Your task to perform on an android device: turn on the 12-hour format for clock Image 0: 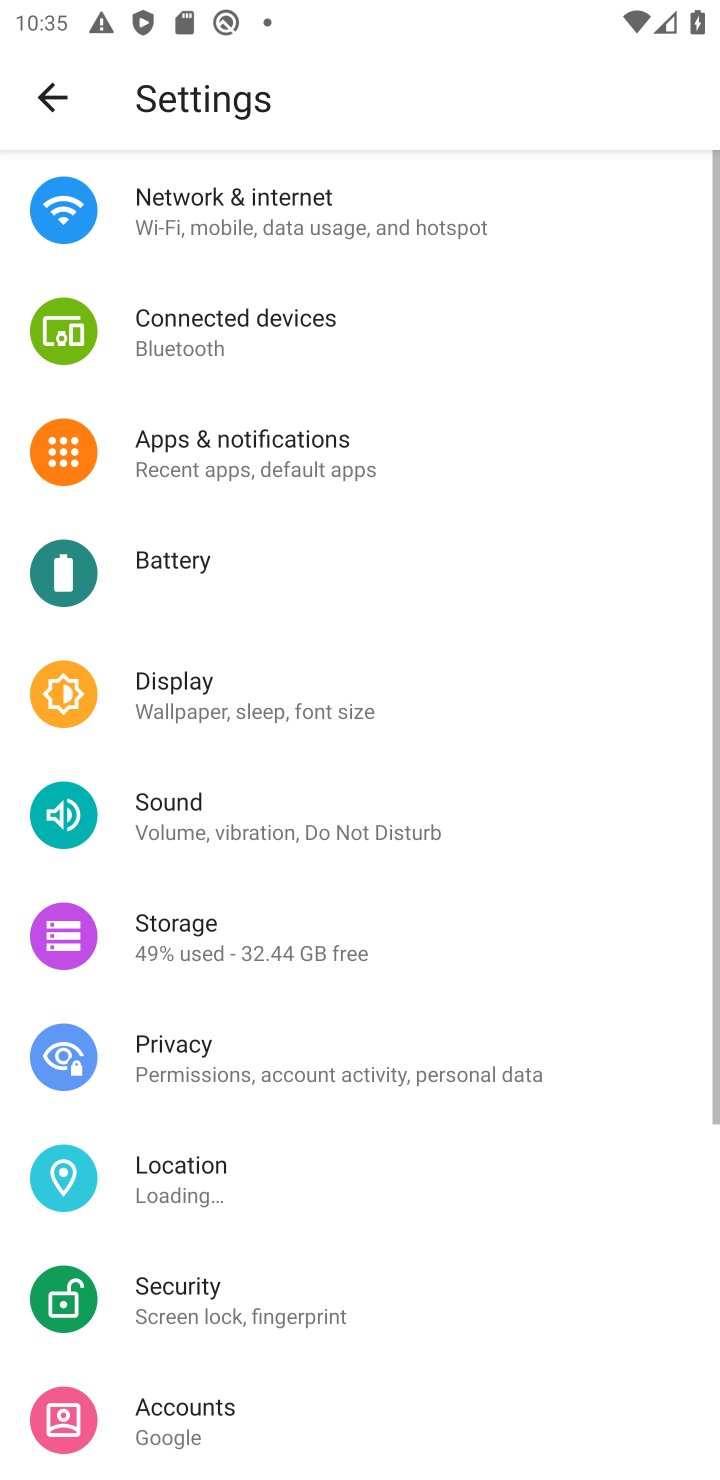
Step 0: press home button
Your task to perform on an android device: turn on the 12-hour format for clock Image 1: 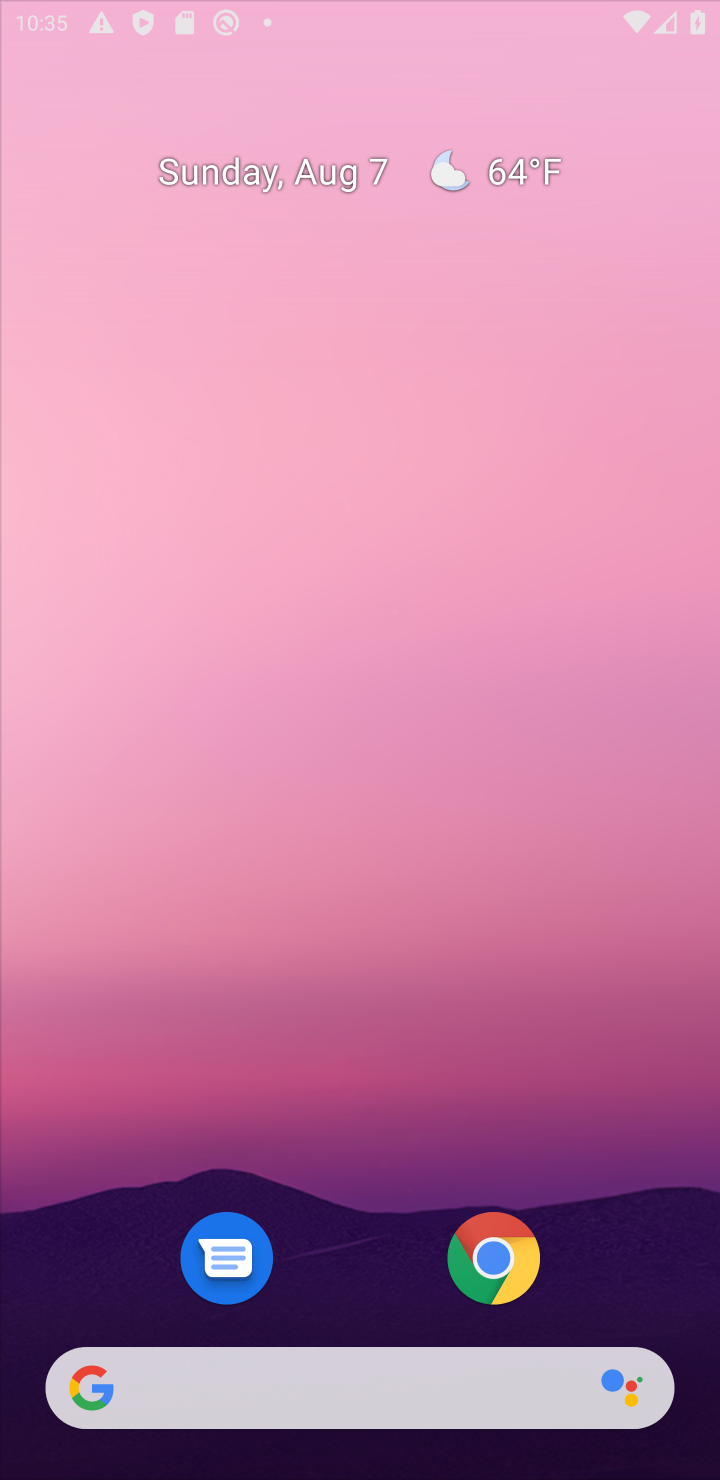
Step 1: press home button
Your task to perform on an android device: turn on the 12-hour format for clock Image 2: 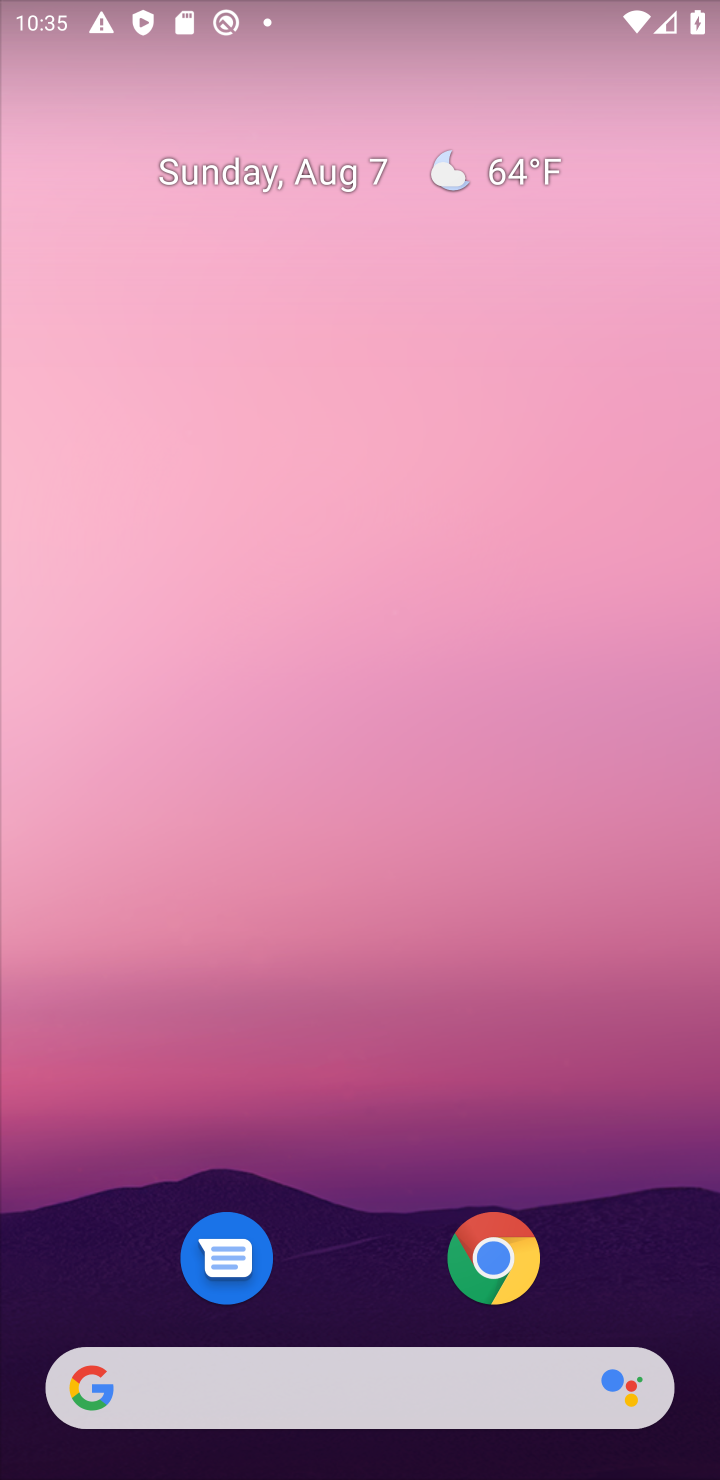
Step 2: press home button
Your task to perform on an android device: turn on the 12-hour format for clock Image 3: 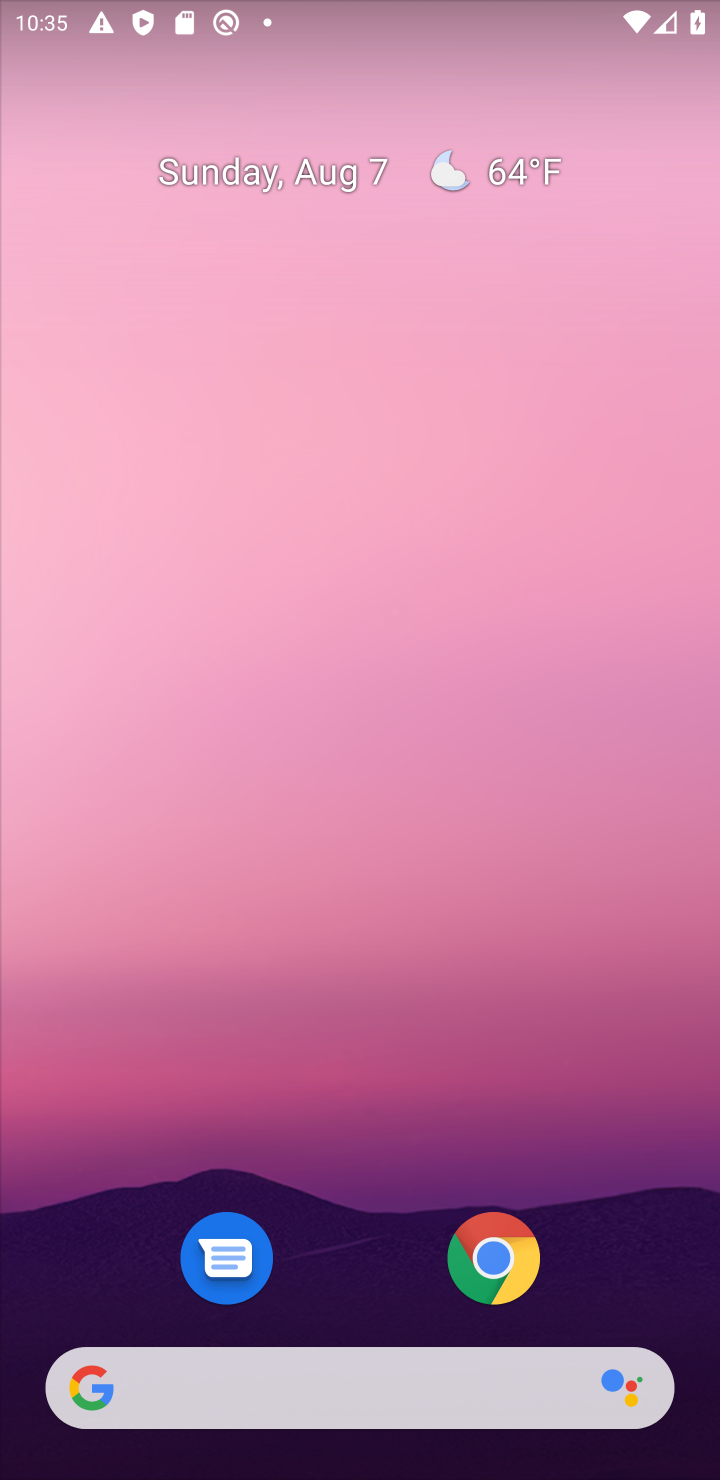
Step 3: click (335, 74)
Your task to perform on an android device: turn on the 12-hour format for clock Image 4: 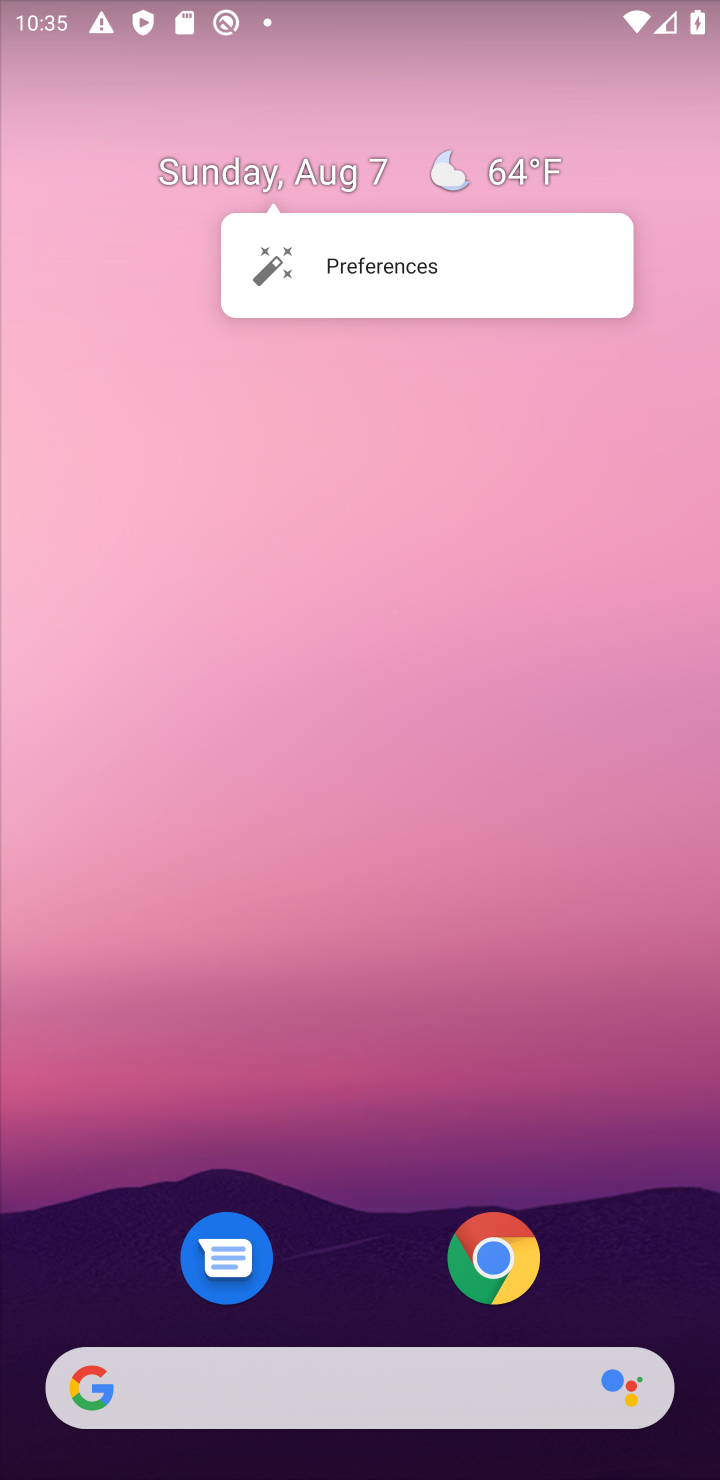
Step 4: click (347, 653)
Your task to perform on an android device: turn on the 12-hour format for clock Image 5: 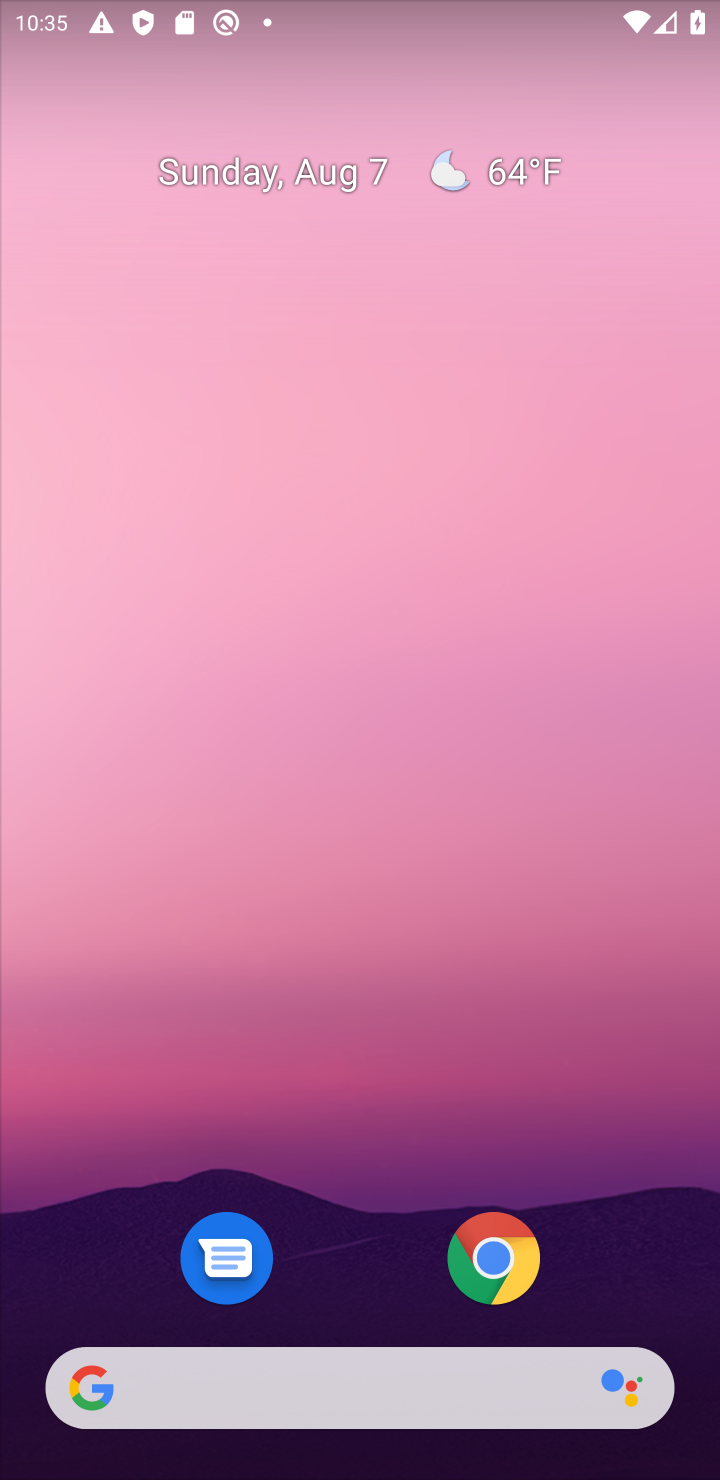
Step 5: drag from (389, 1323) to (306, 579)
Your task to perform on an android device: turn on the 12-hour format for clock Image 6: 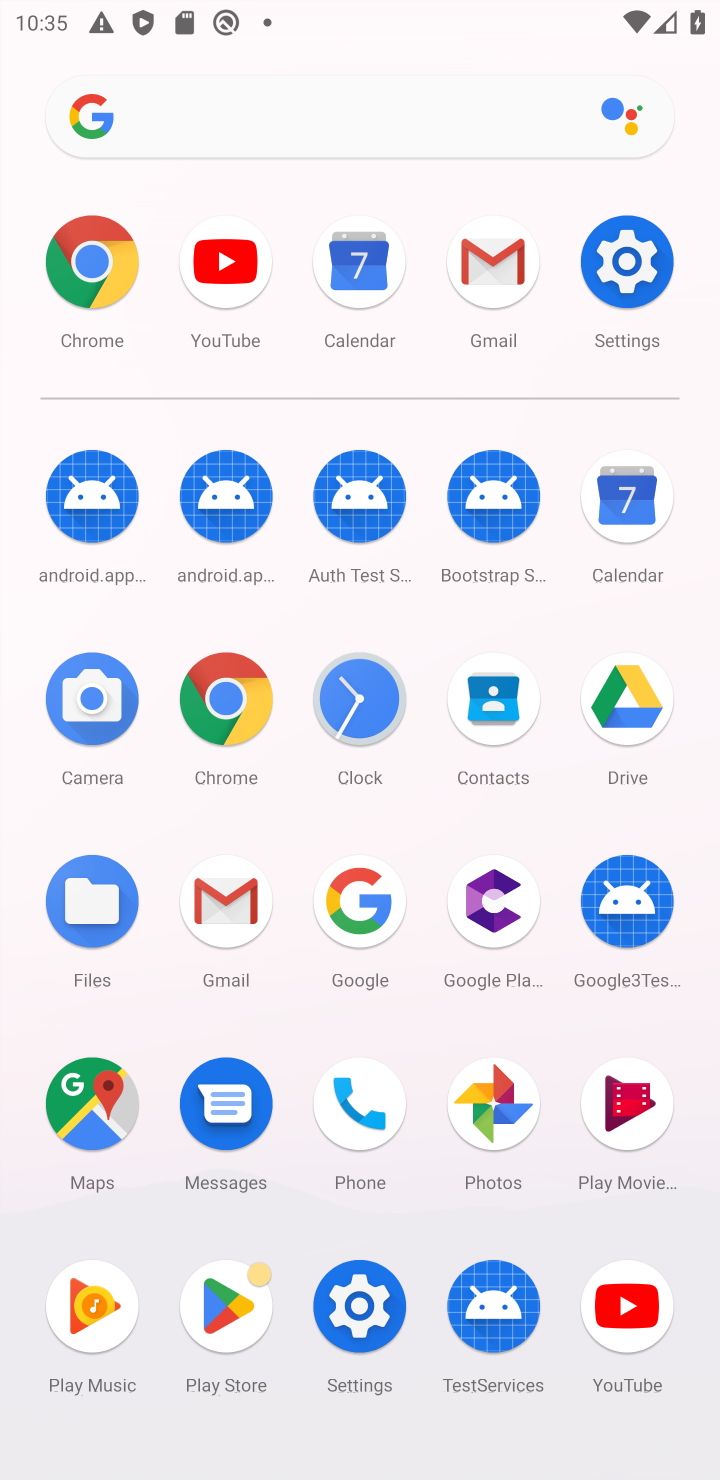
Step 6: click (380, 679)
Your task to perform on an android device: turn on the 12-hour format for clock Image 7: 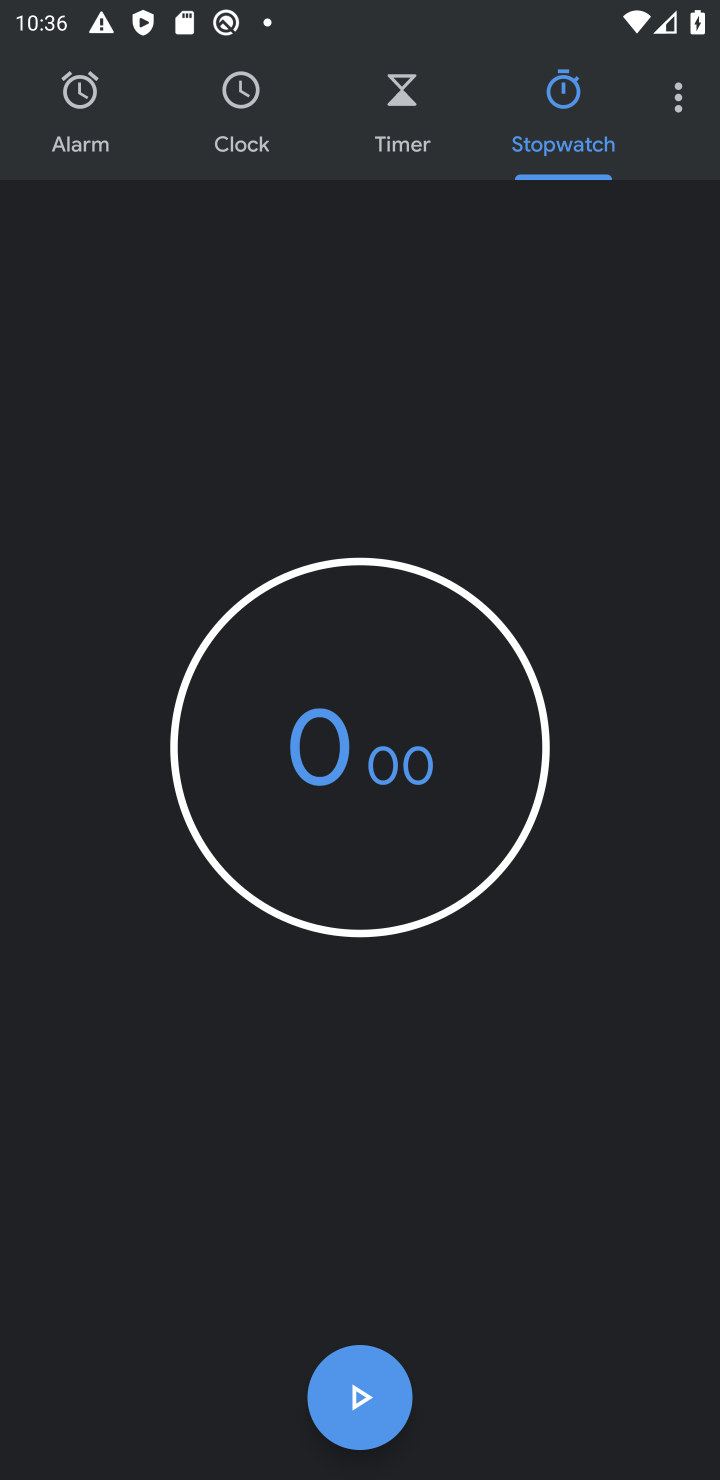
Step 7: click (683, 93)
Your task to perform on an android device: turn on the 12-hour format for clock Image 8: 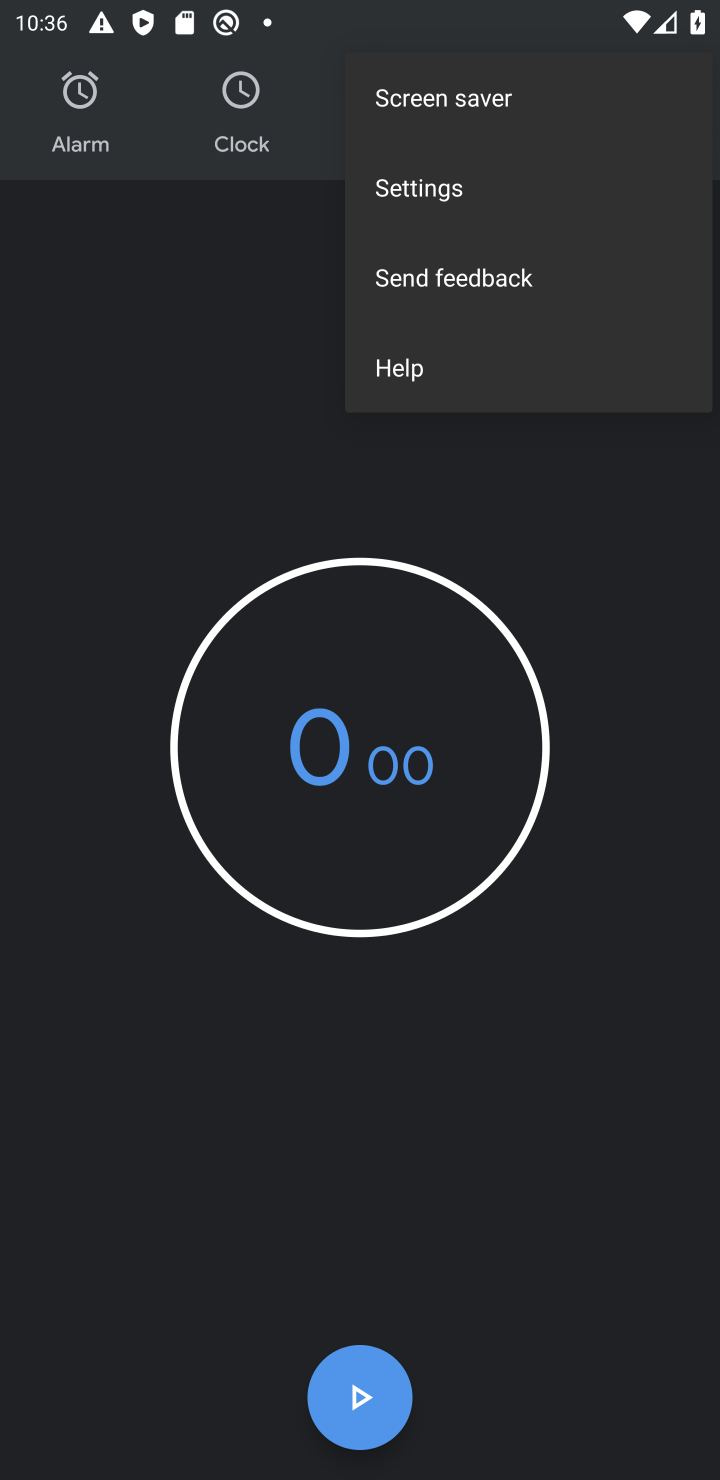
Step 8: click (420, 180)
Your task to perform on an android device: turn on the 12-hour format for clock Image 9: 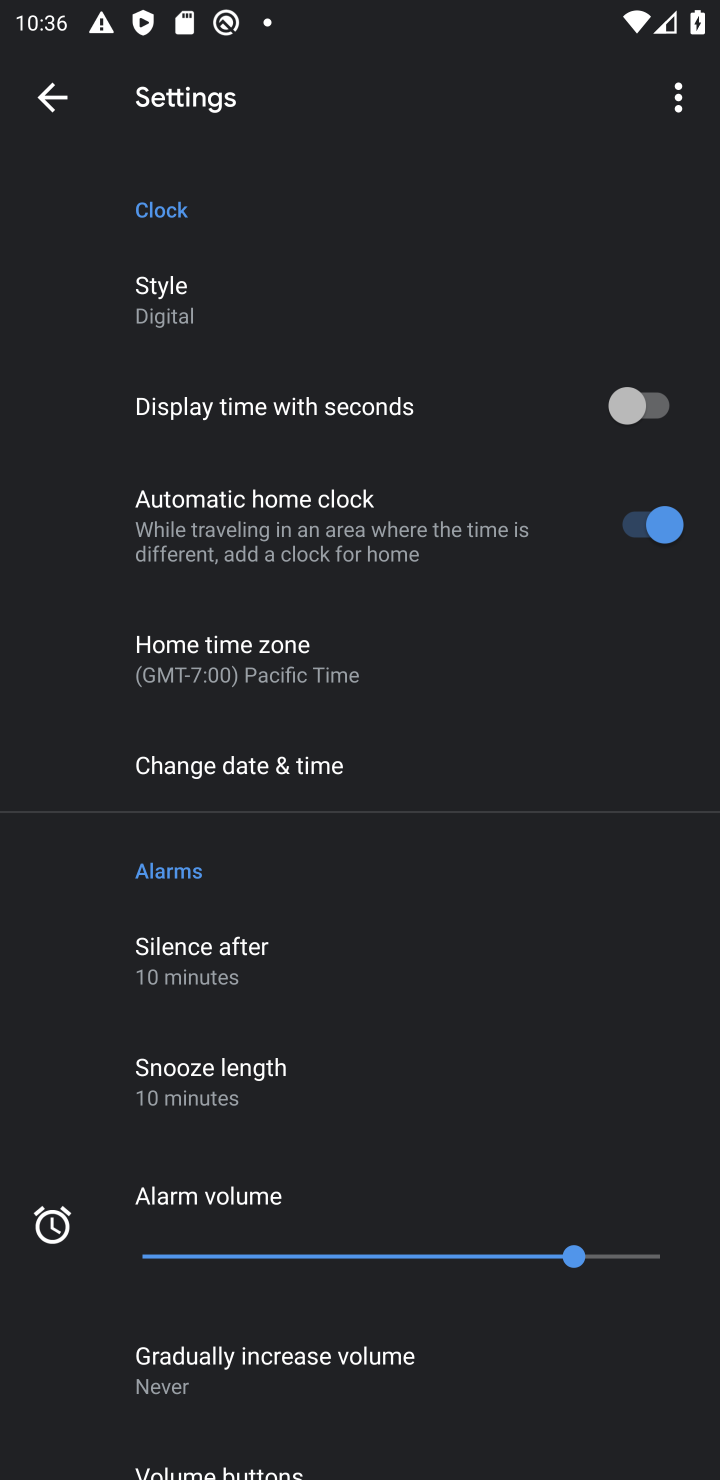
Step 9: click (336, 752)
Your task to perform on an android device: turn on the 12-hour format for clock Image 10: 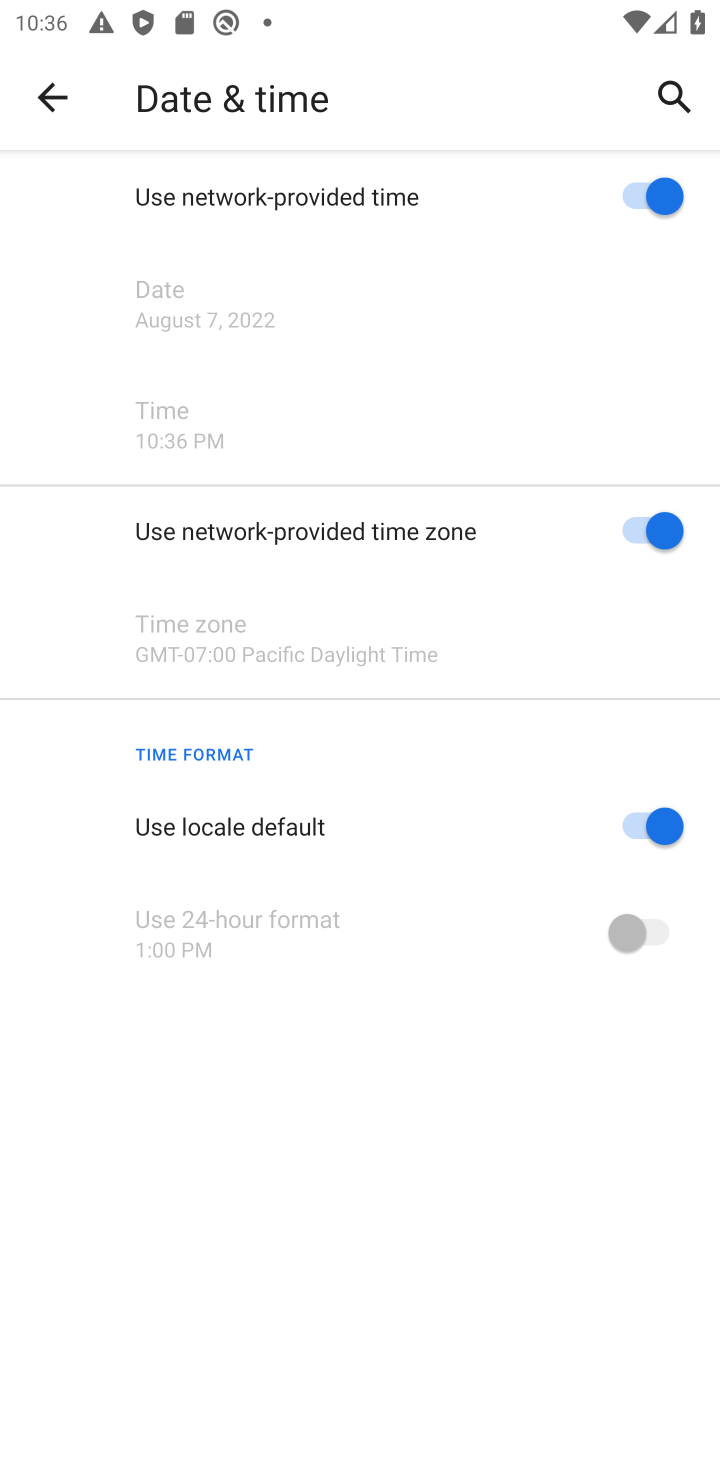
Step 10: click (359, 827)
Your task to perform on an android device: turn on the 12-hour format for clock Image 11: 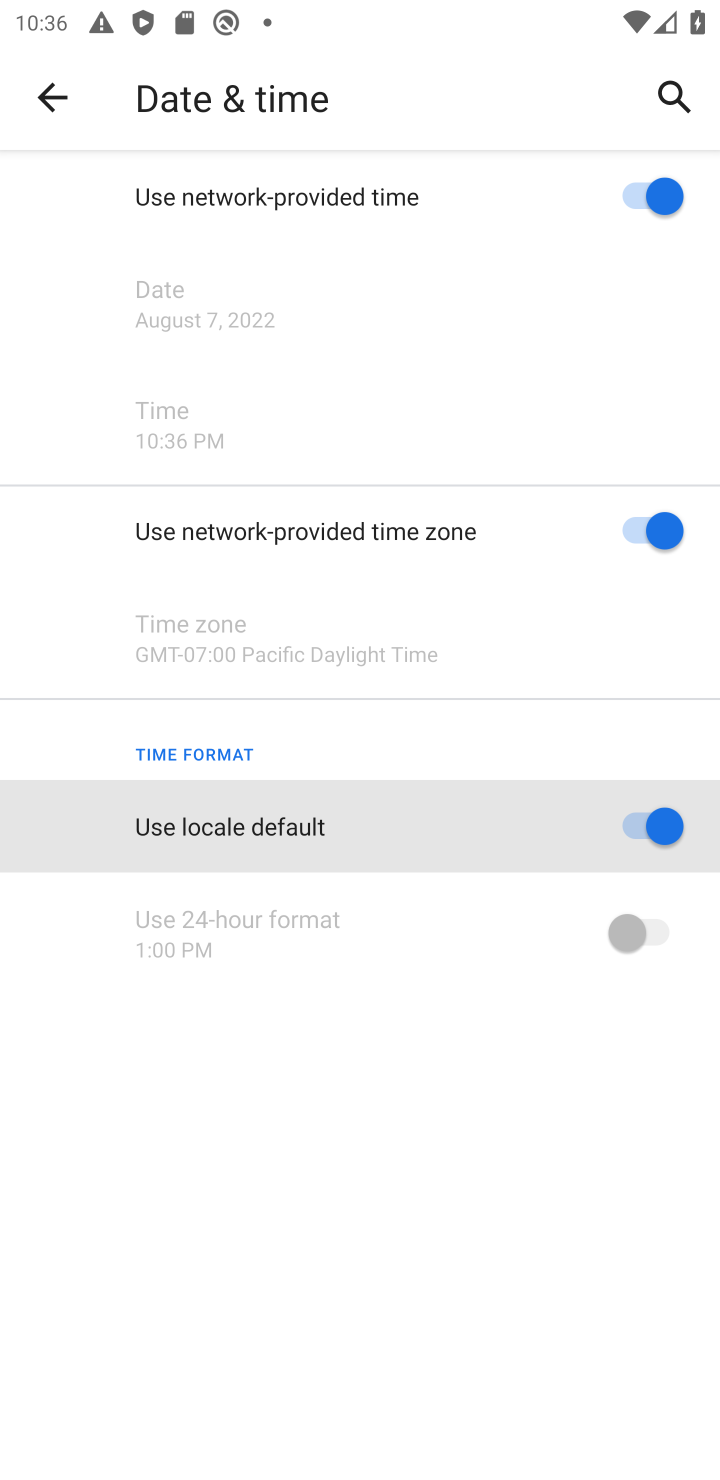
Step 11: click (409, 944)
Your task to perform on an android device: turn on the 12-hour format for clock Image 12: 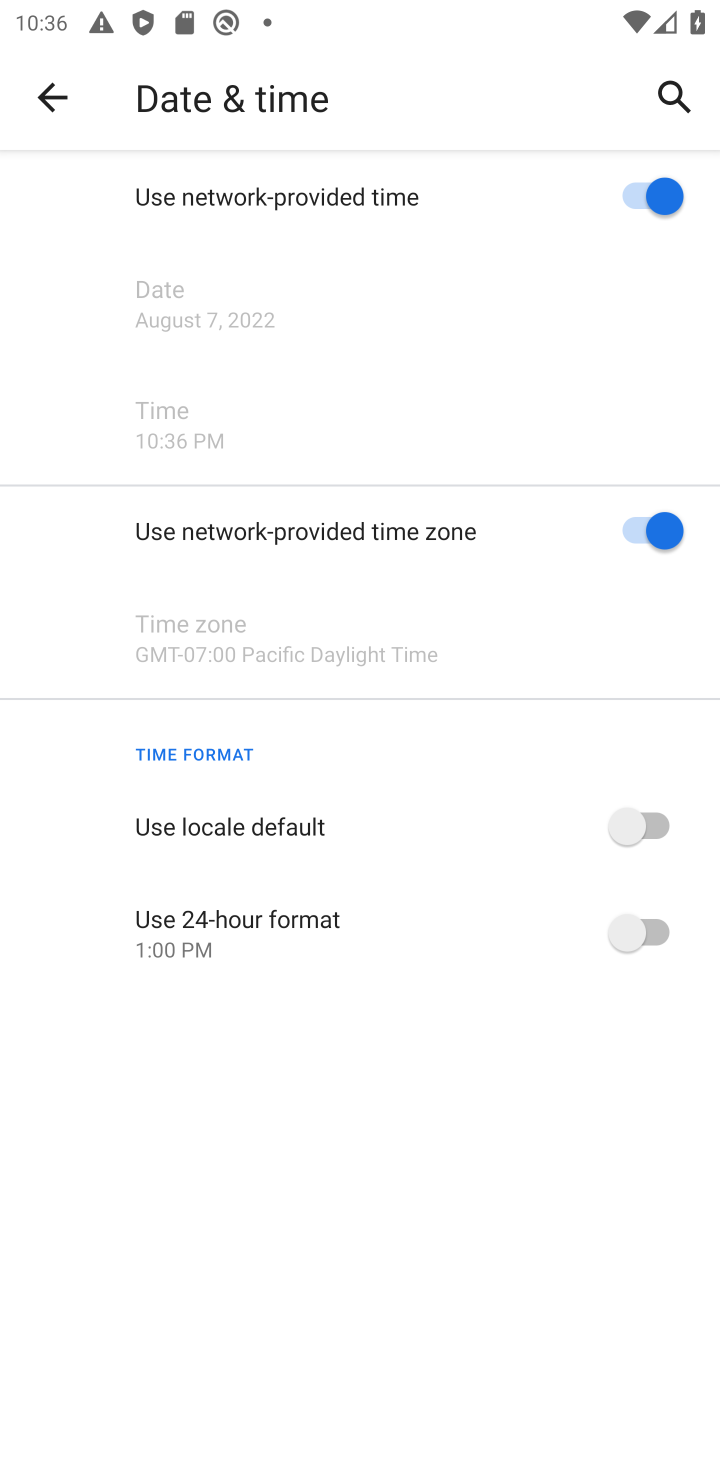
Step 12: click (638, 936)
Your task to perform on an android device: turn on the 12-hour format for clock Image 13: 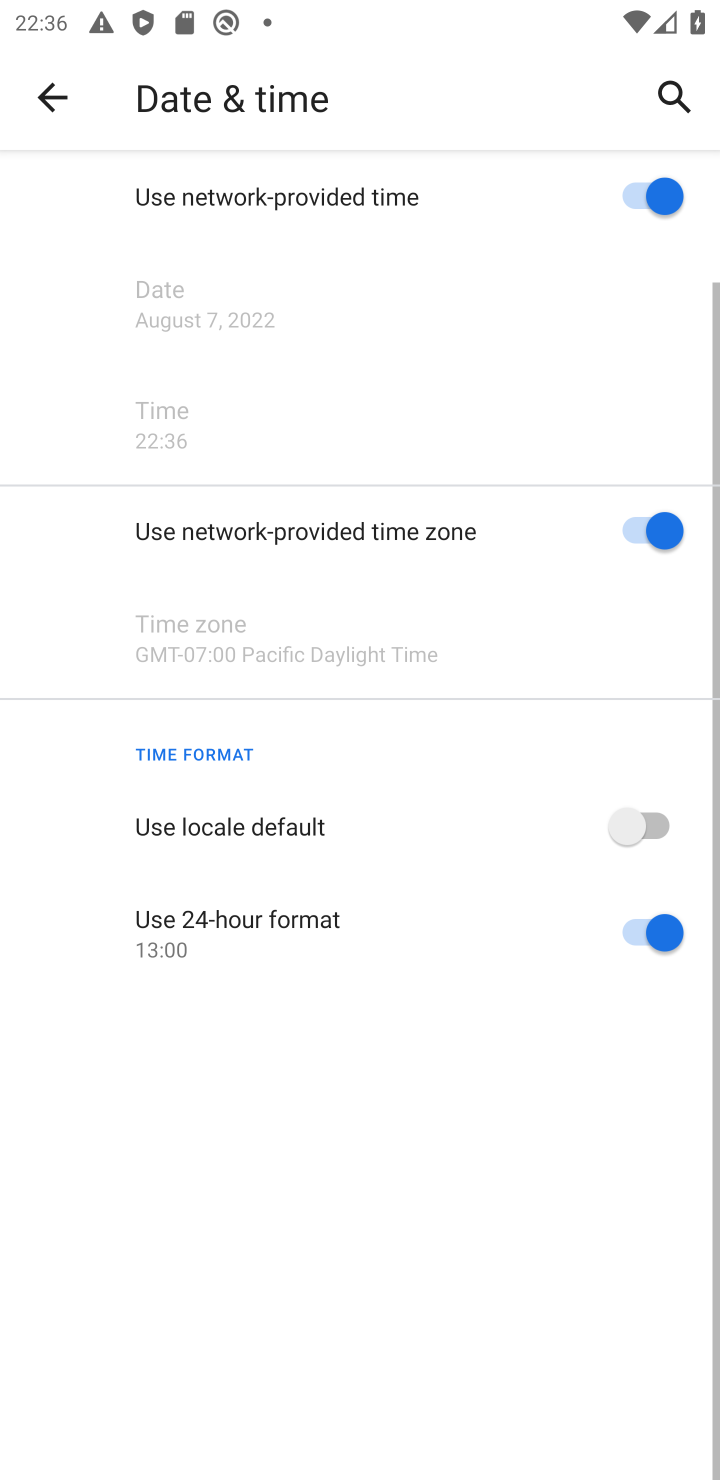
Step 13: task complete